Your task to perform on an android device: Go to CNN.com Image 0: 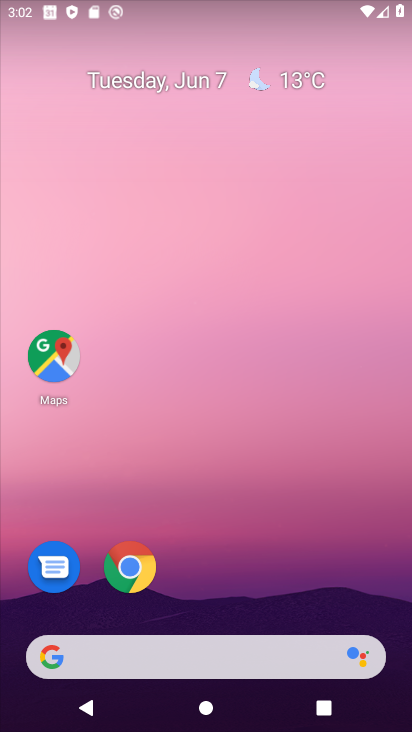
Step 0: click (107, 579)
Your task to perform on an android device: Go to CNN.com Image 1: 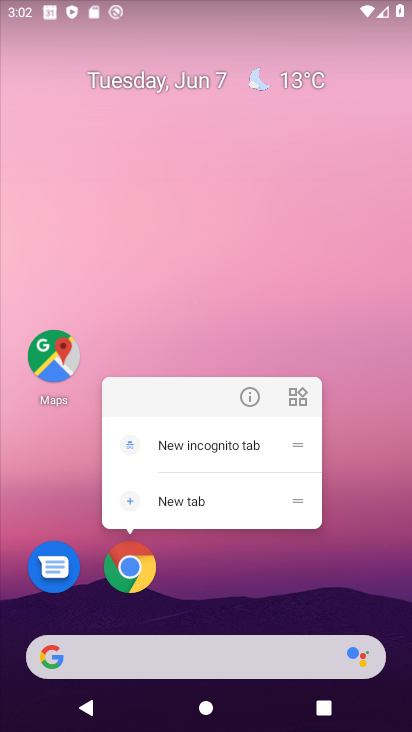
Step 1: click (122, 554)
Your task to perform on an android device: Go to CNN.com Image 2: 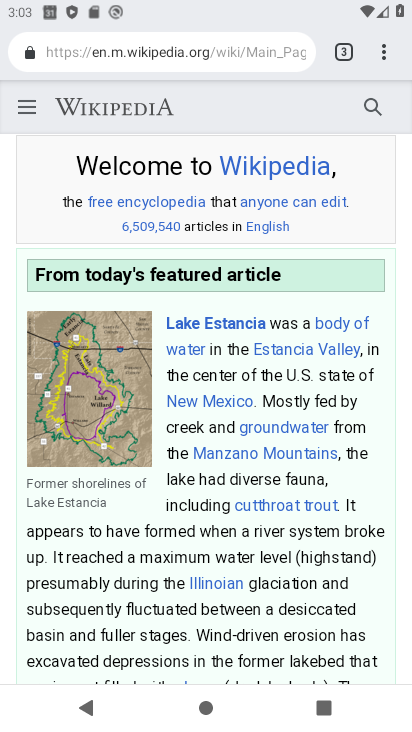
Step 2: click (328, 62)
Your task to perform on an android device: Go to CNN.com Image 3: 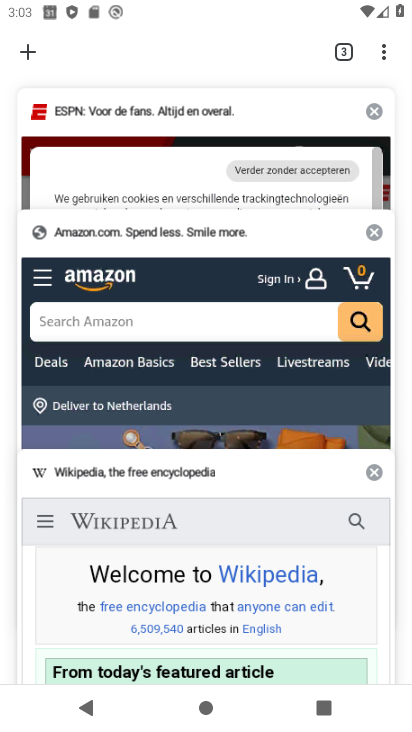
Step 3: click (32, 59)
Your task to perform on an android device: Go to CNN.com Image 4: 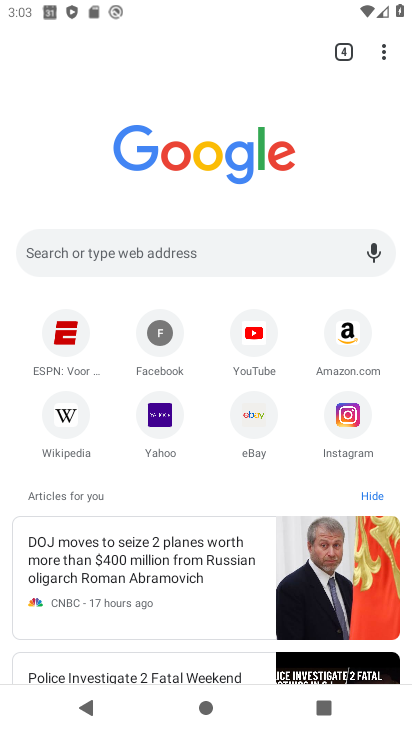
Step 4: click (160, 243)
Your task to perform on an android device: Go to CNN.com Image 5: 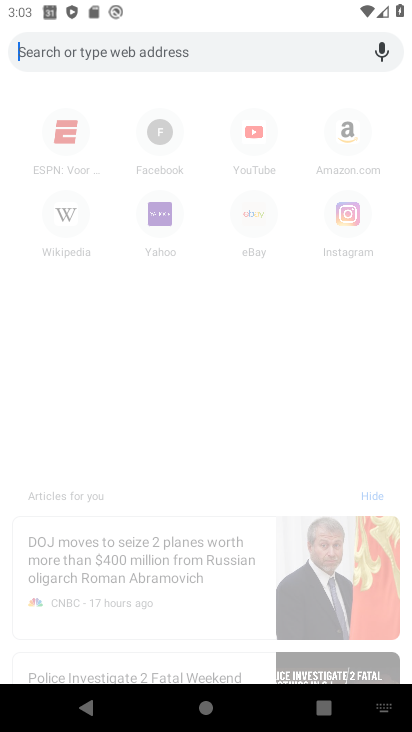
Step 5: type "cnn.com"
Your task to perform on an android device: Go to CNN.com Image 6: 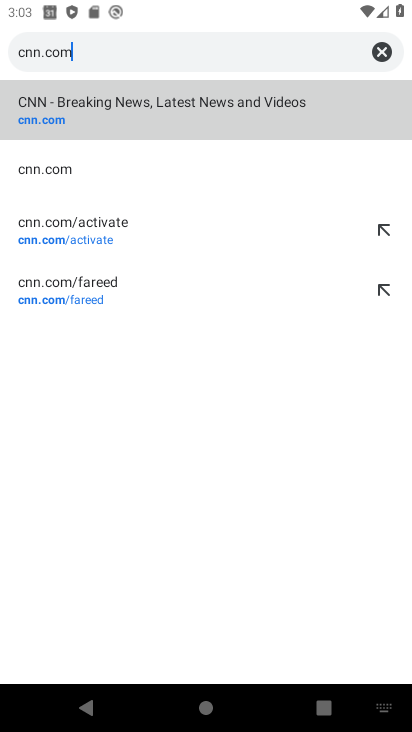
Step 6: task complete